Your task to perform on an android device: Go to Google Image 0: 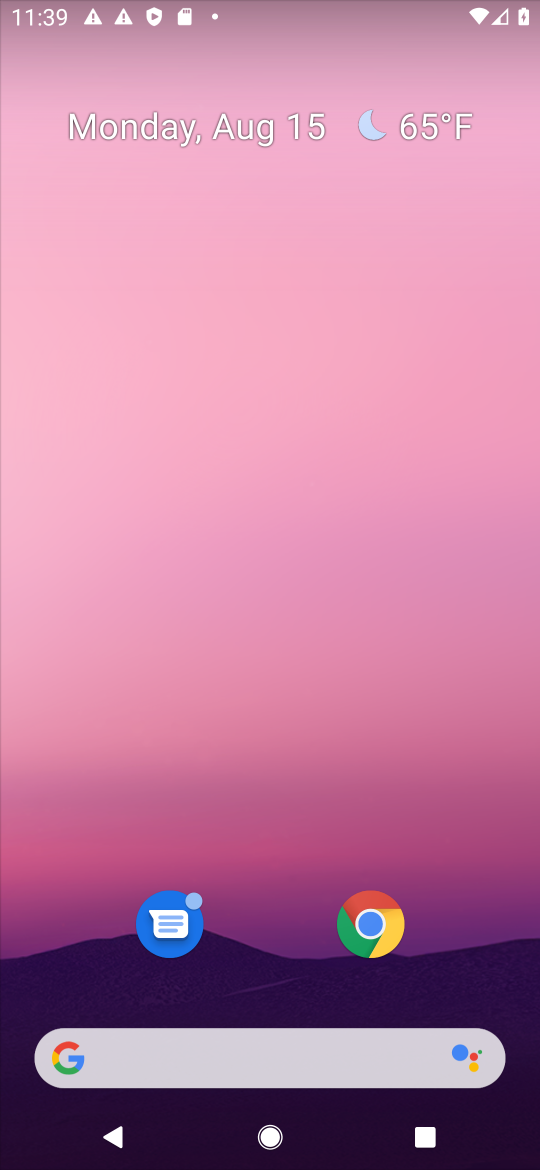
Step 0: drag from (289, 918) to (281, 139)
Your task to perform on an android device: Go to Google Image 1: 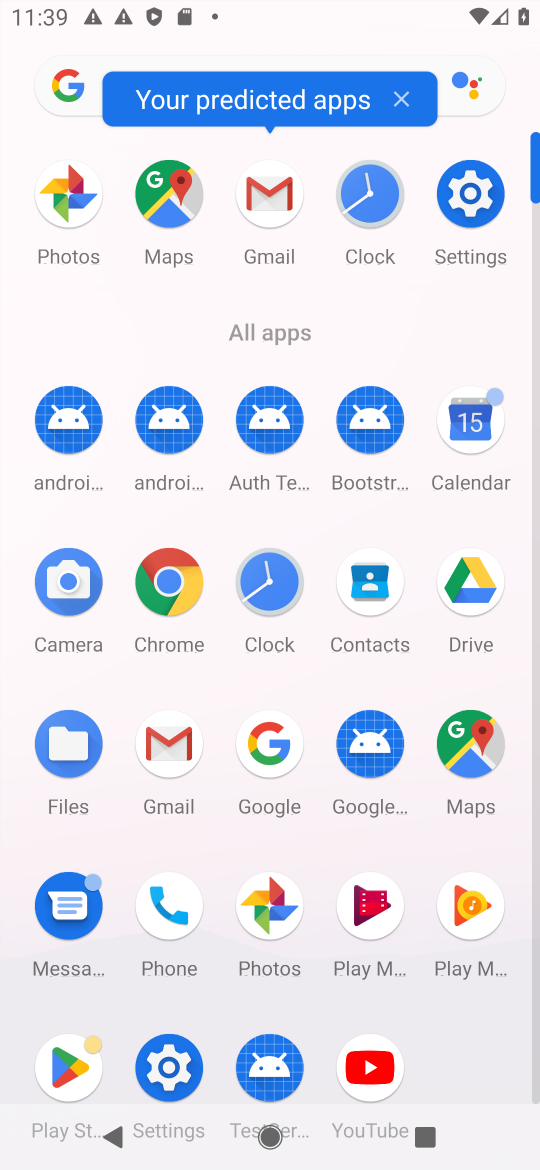
Step 1: click (262, 758)
Your task to perform on an android device: Go to Google Image 2: 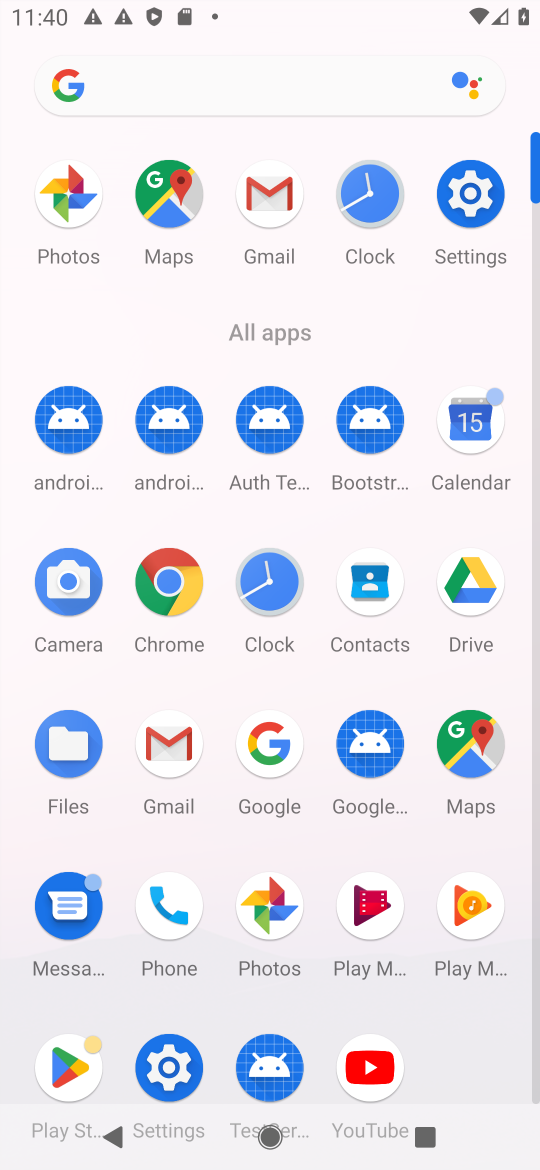
Step 2: click (285, 771)
Your task to perform on an android device: Go to Google Image 3: 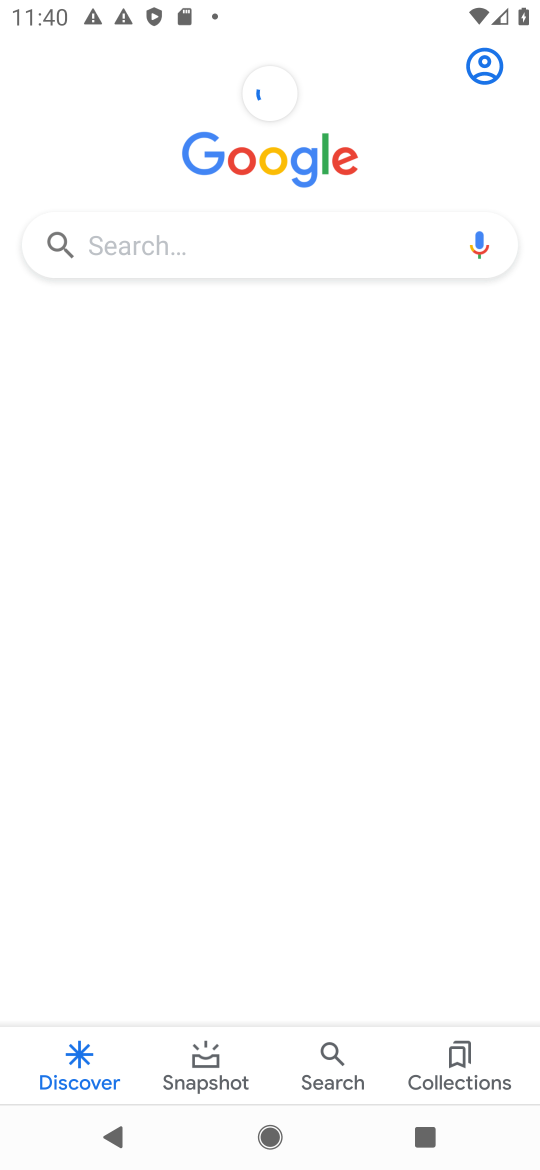
Step 3: task complete